Your task to perform on an android device: install app "PUBG MOBILE" Image 0: 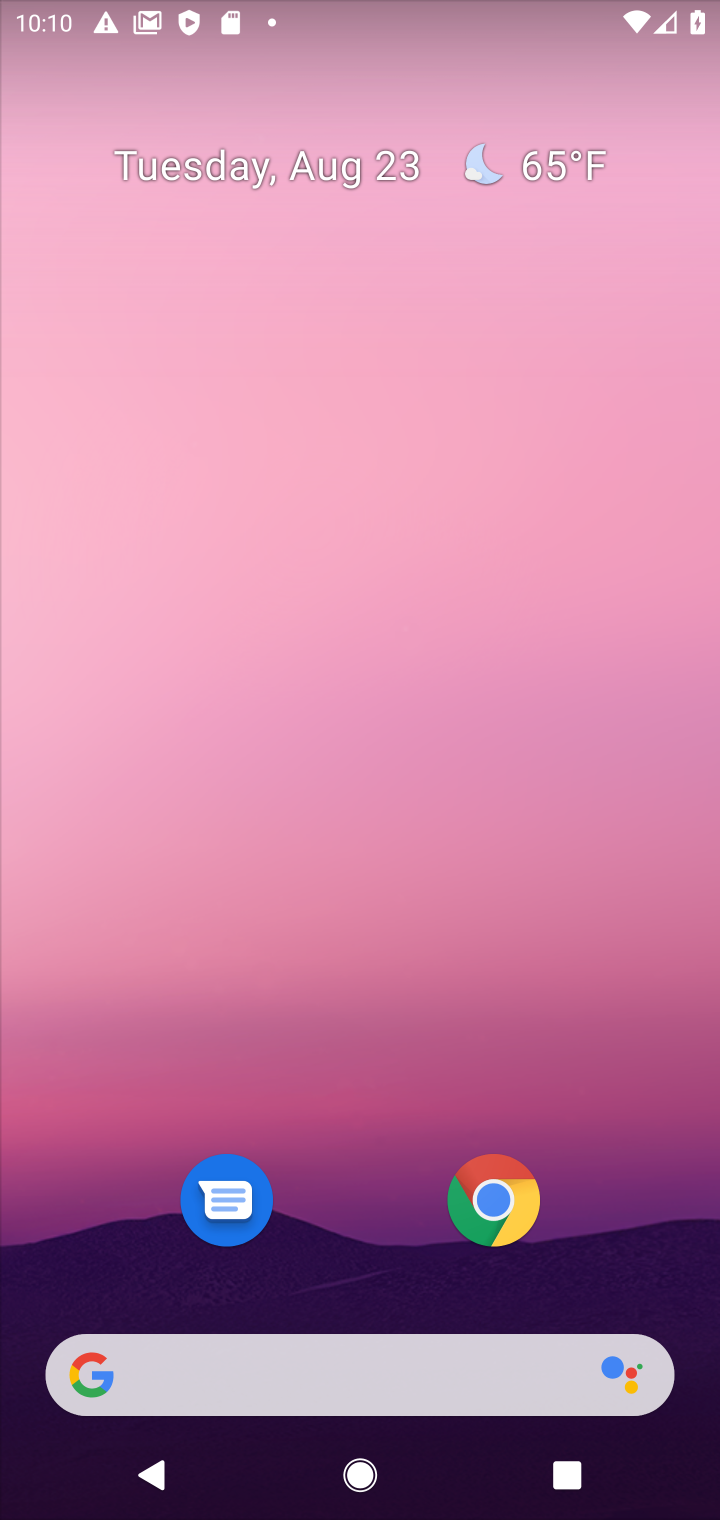
Step 0: drag from (363, 1291) to (337, 90)
Your task to perform on an android device: install app "PUBG MOBILE" Image 1: 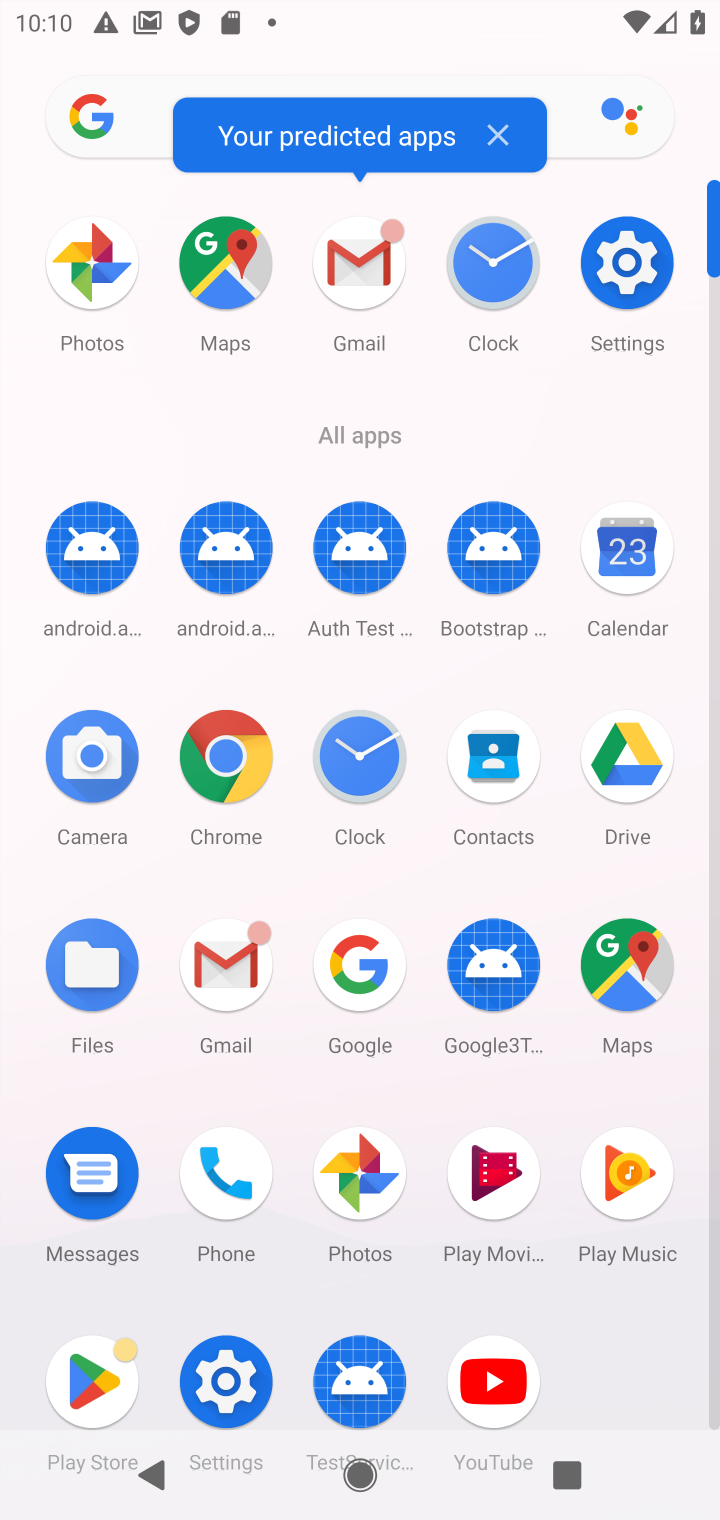
Step 1: click (60, 1337)
Your task to perform on an android device: install app "PUBG MOBILE" Image 2: 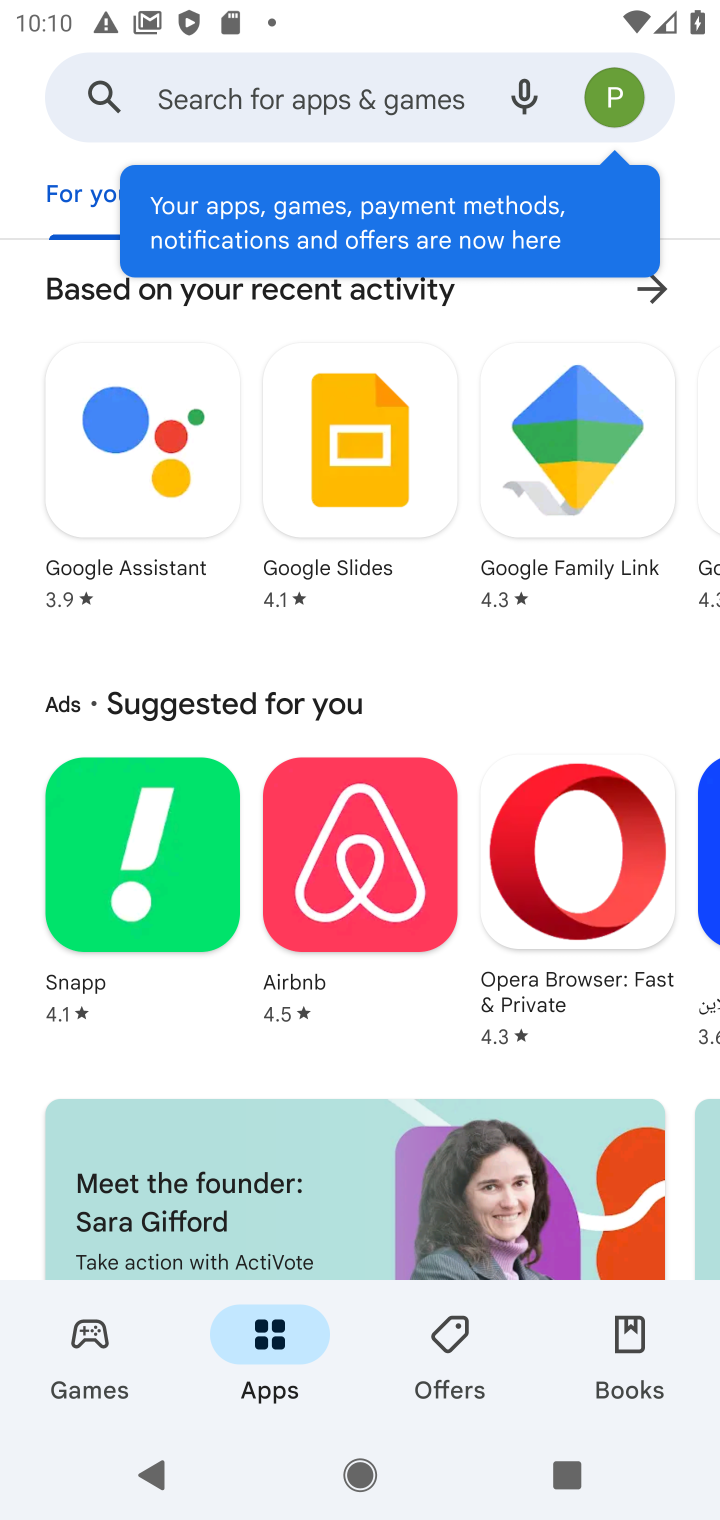
Step 2: click (230, 180)
Your task to perform on an android device: install app "PUBG MOBILE" Image 3: 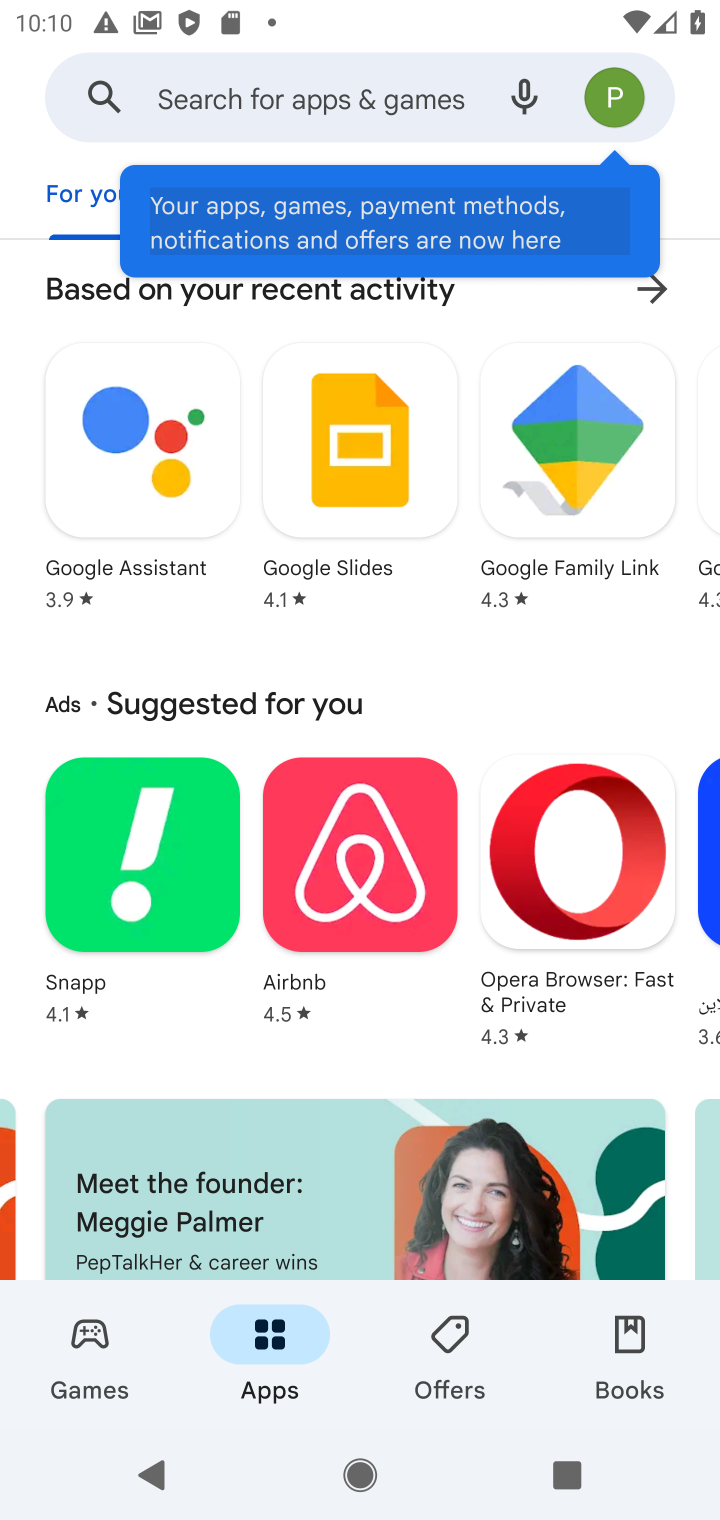
Step 3: click (271, 102)
Your task to perform on an android device: install app "PUBG MOBILE" Image 4: 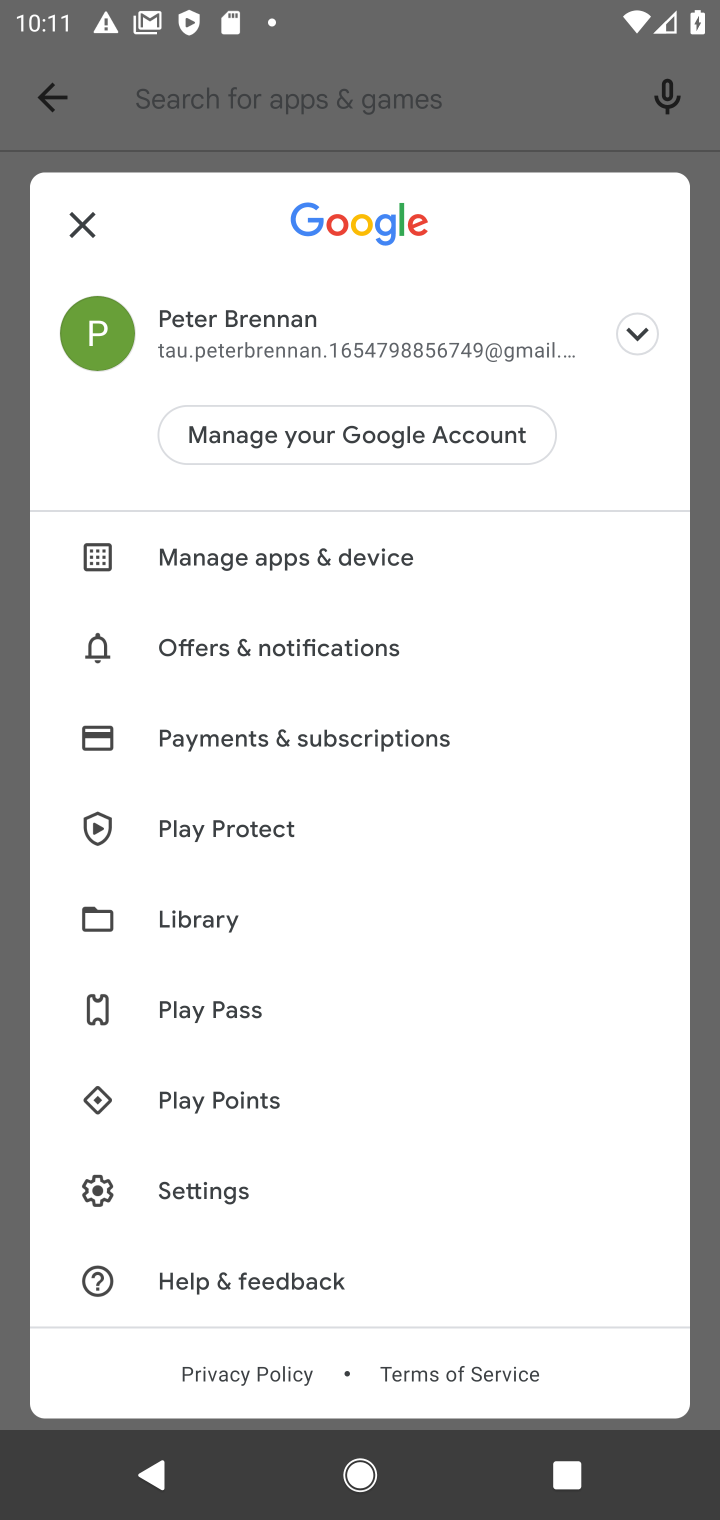
Step 4: click (271, 102)
Your task to perform on an android device: install app "PUBG MOBILE" Image 5: 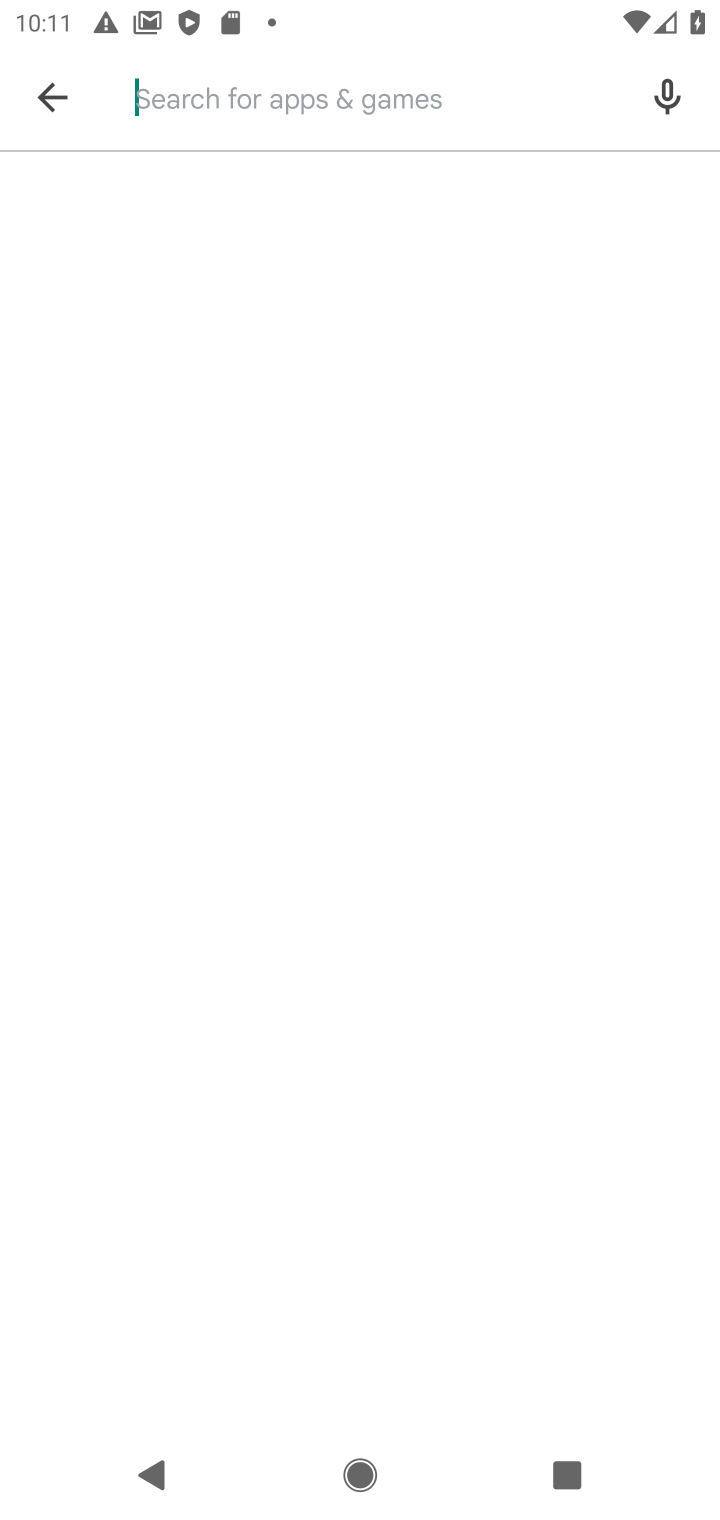
Step 5: click (323, 1519)
Your task to perform on an android device: install app "PUBG MOBILE" Image 6: 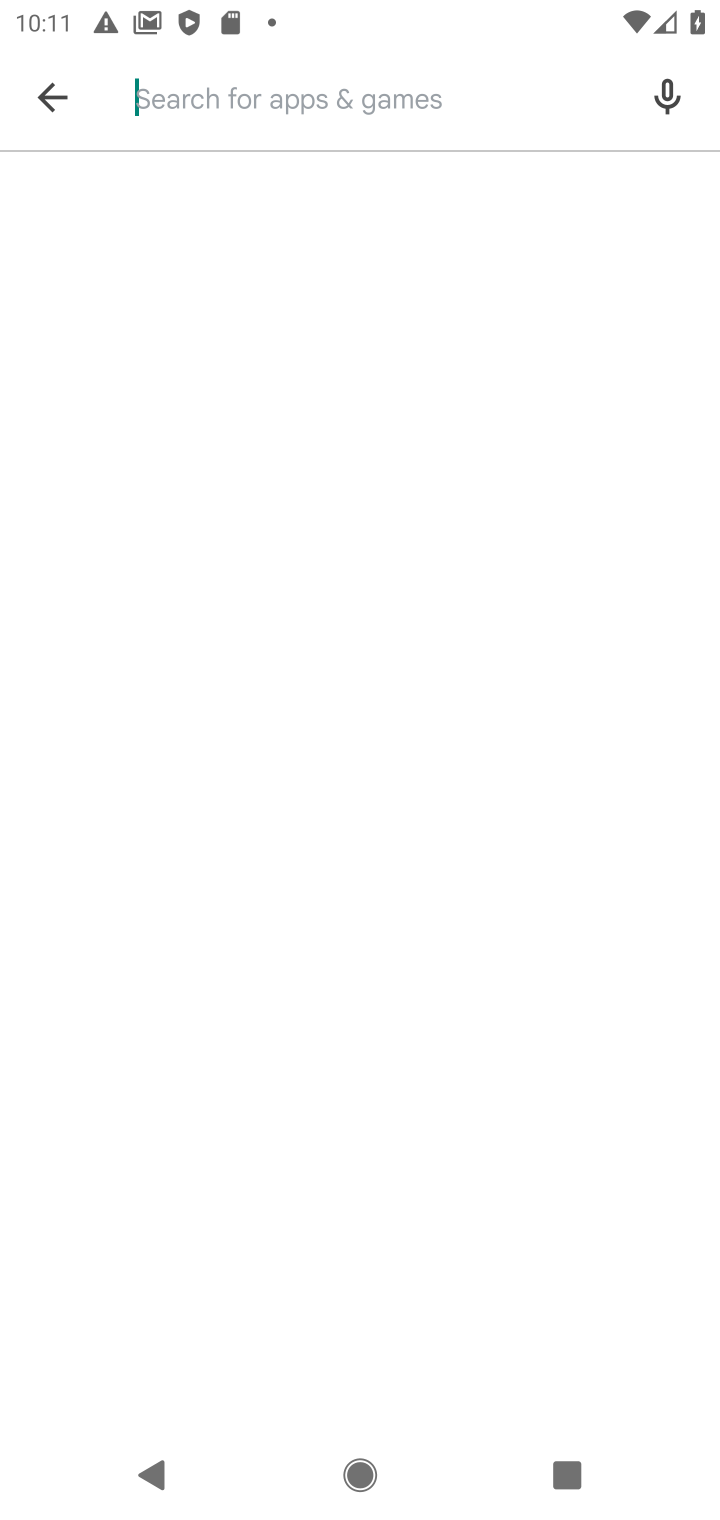
Step 6: type "PUBG MOBILE"
Your task to perform on an android device: install app "PUBG MOBILE" Image 7: 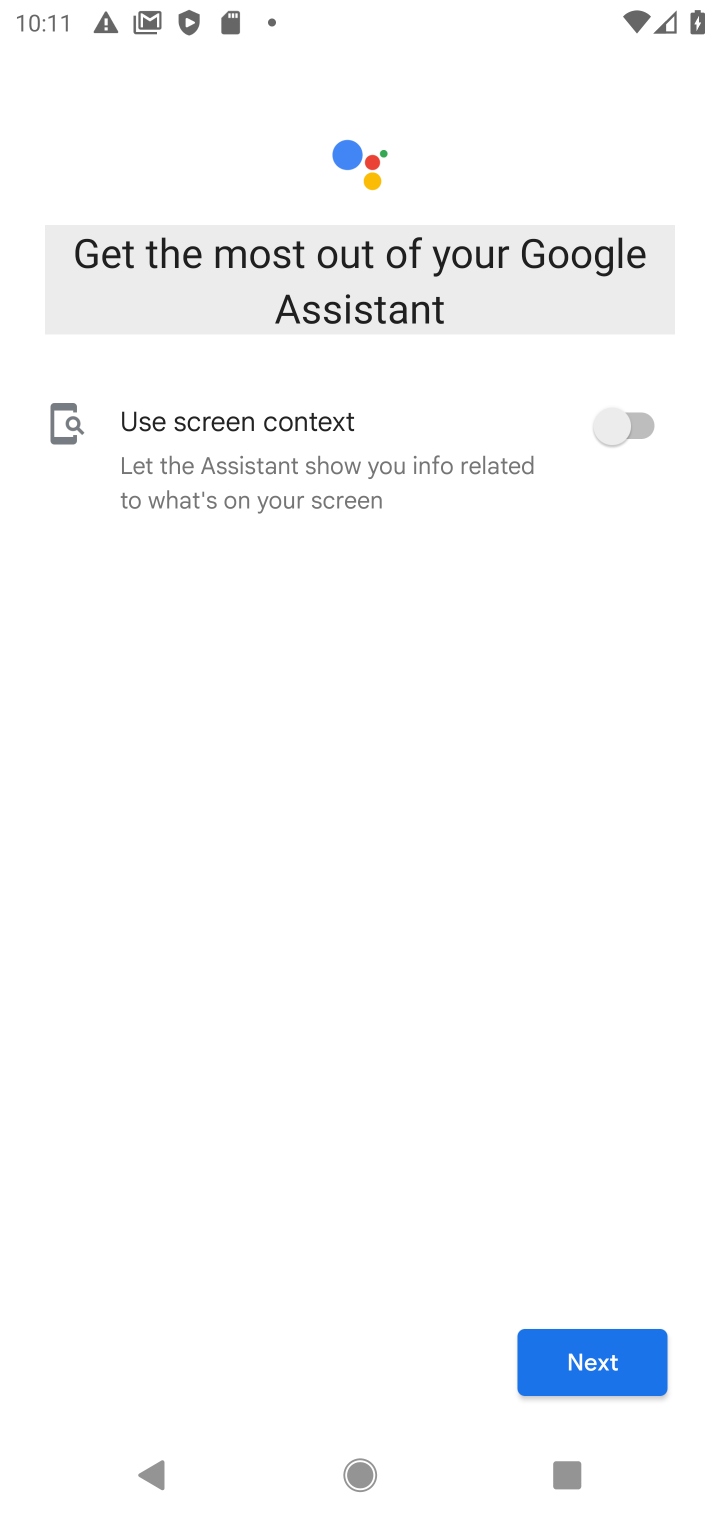
Step 7: click (323, 1519)
Your task to perform on an android device: install app "PUBG MOBILE" Image 8: 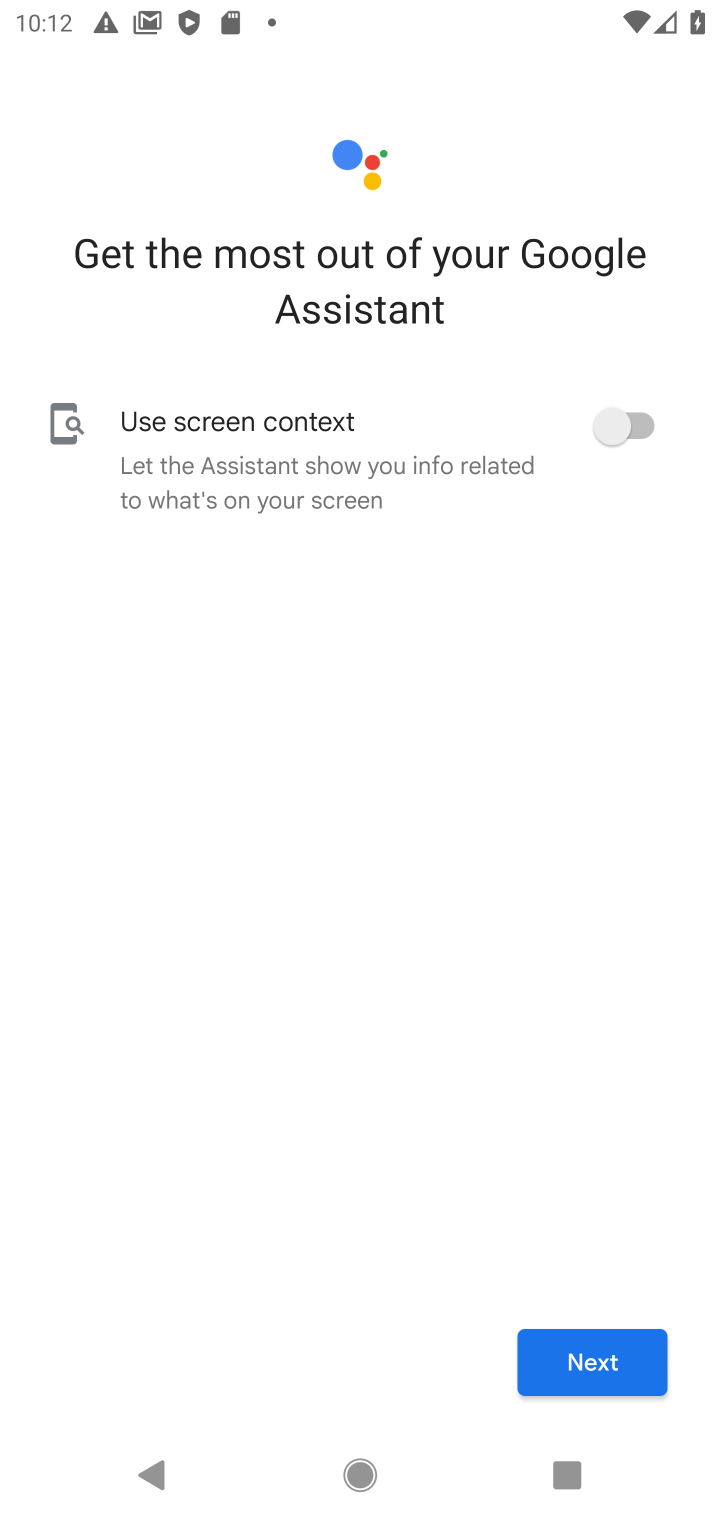
Step 8: press back button
Your task to perform on an android device: install app "PUBG MOBILE" Image 9: 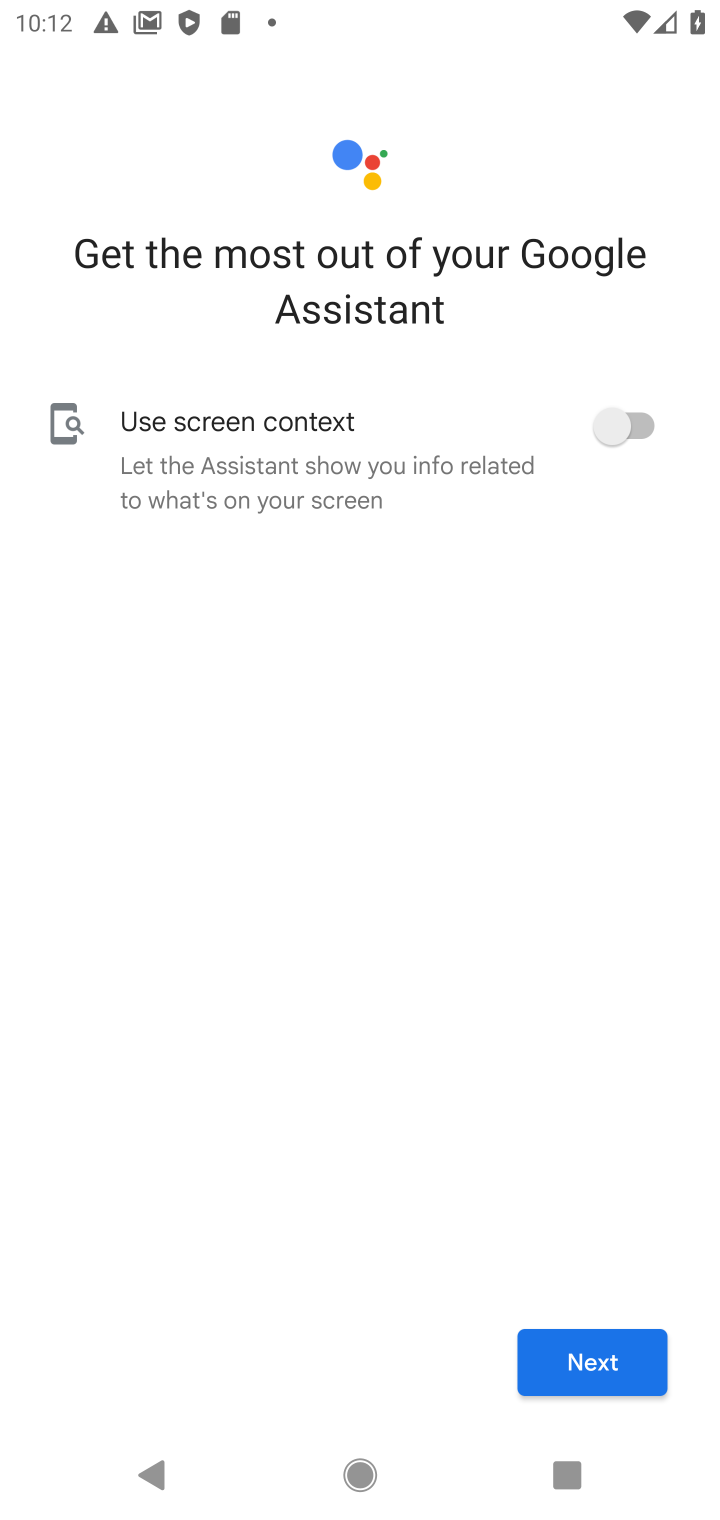
Step 9: drag from (323, 1519) to (573, 1020)
Your task to perform on an android device: install app "PUBG MOBILE" Image 10: 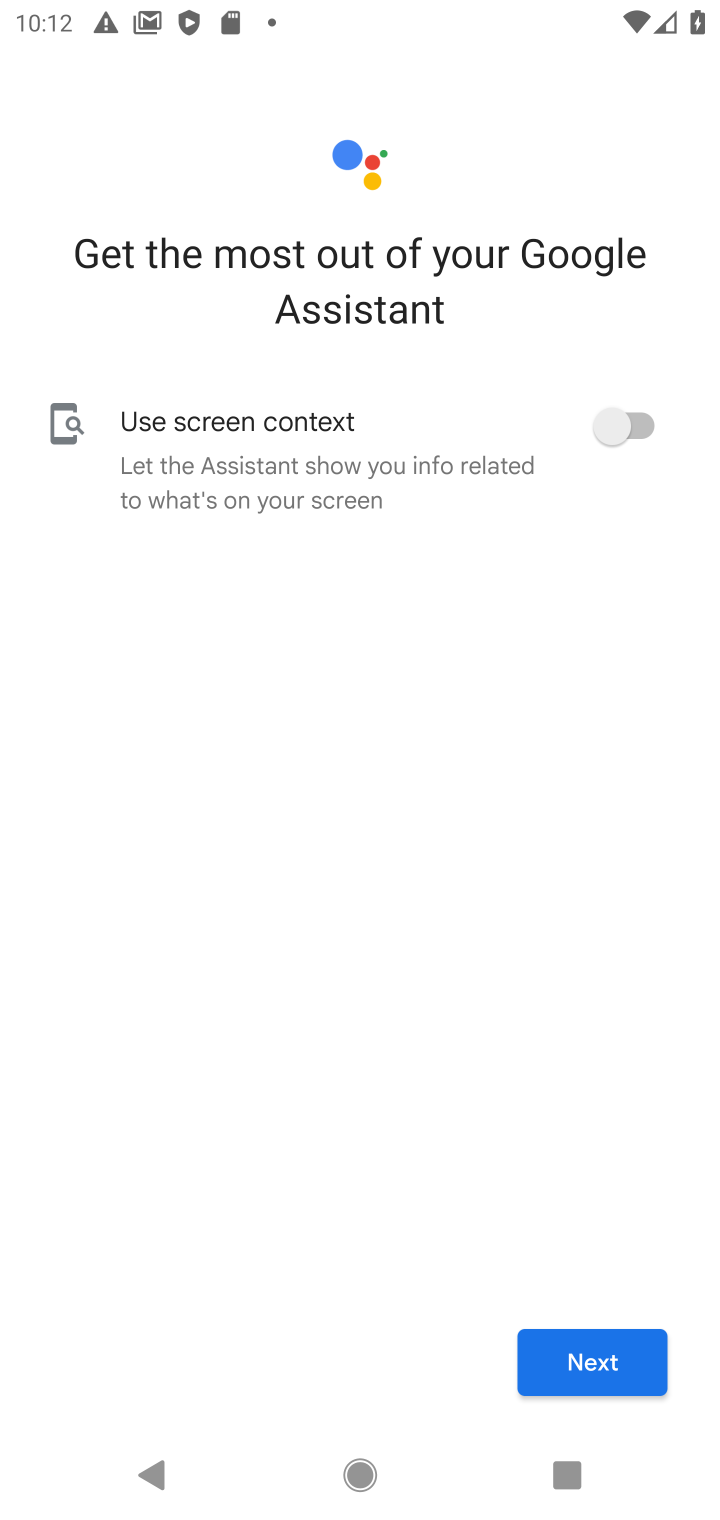
Step 10: press home button
Your task to perform on an android device: install app "PUBG MOBILE" Image 11: 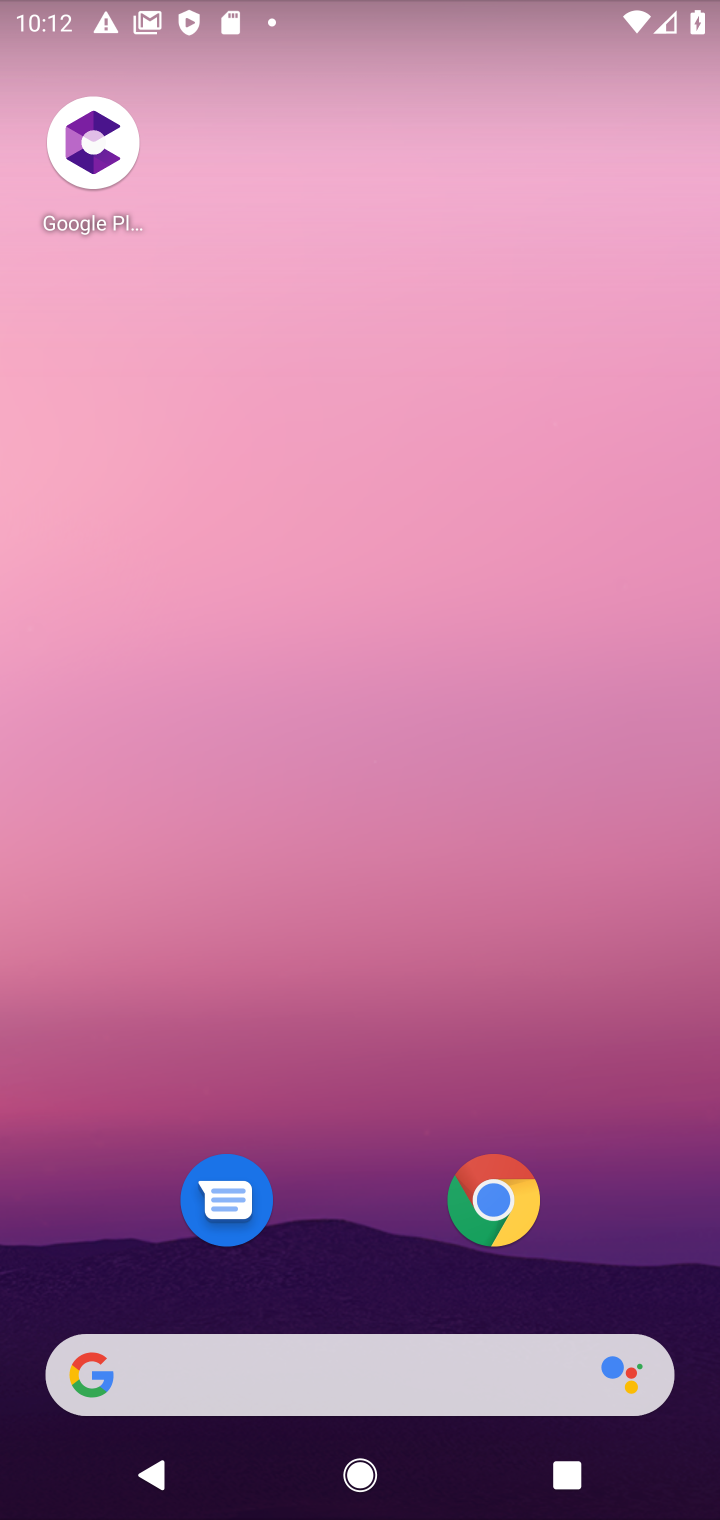
Step 11: drag from (325, 1286) to (136, 159)
Your task to perform on an android device: install app "PUBG MOBILE" Image 12: 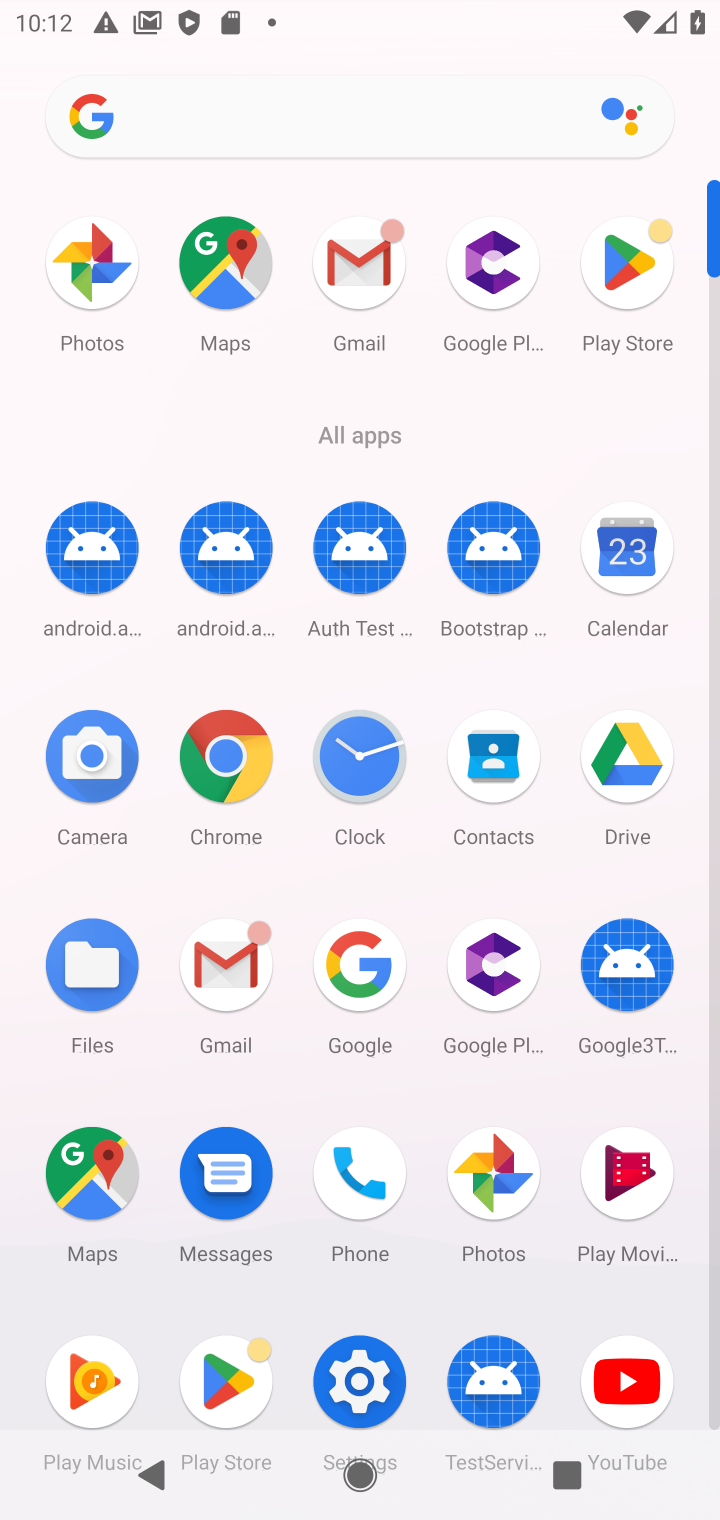
Step 12: click (224, 1373)
Your task to perform on an android device: install app "PUBG MOBILE" Image 13: 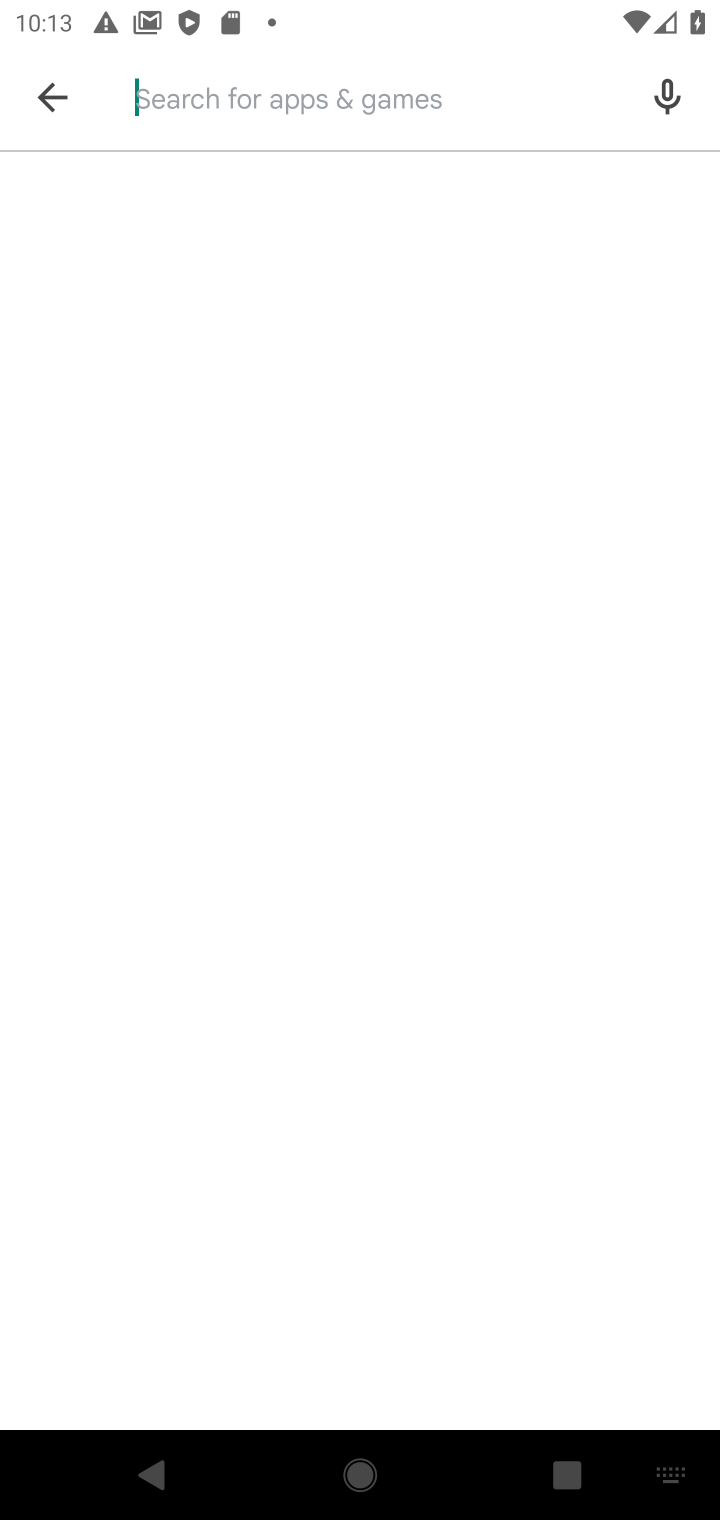
Step 13: type "PUBG MOBILE"
Your task to perform on an android device: install app "PUBG MOBILE" Image 14: 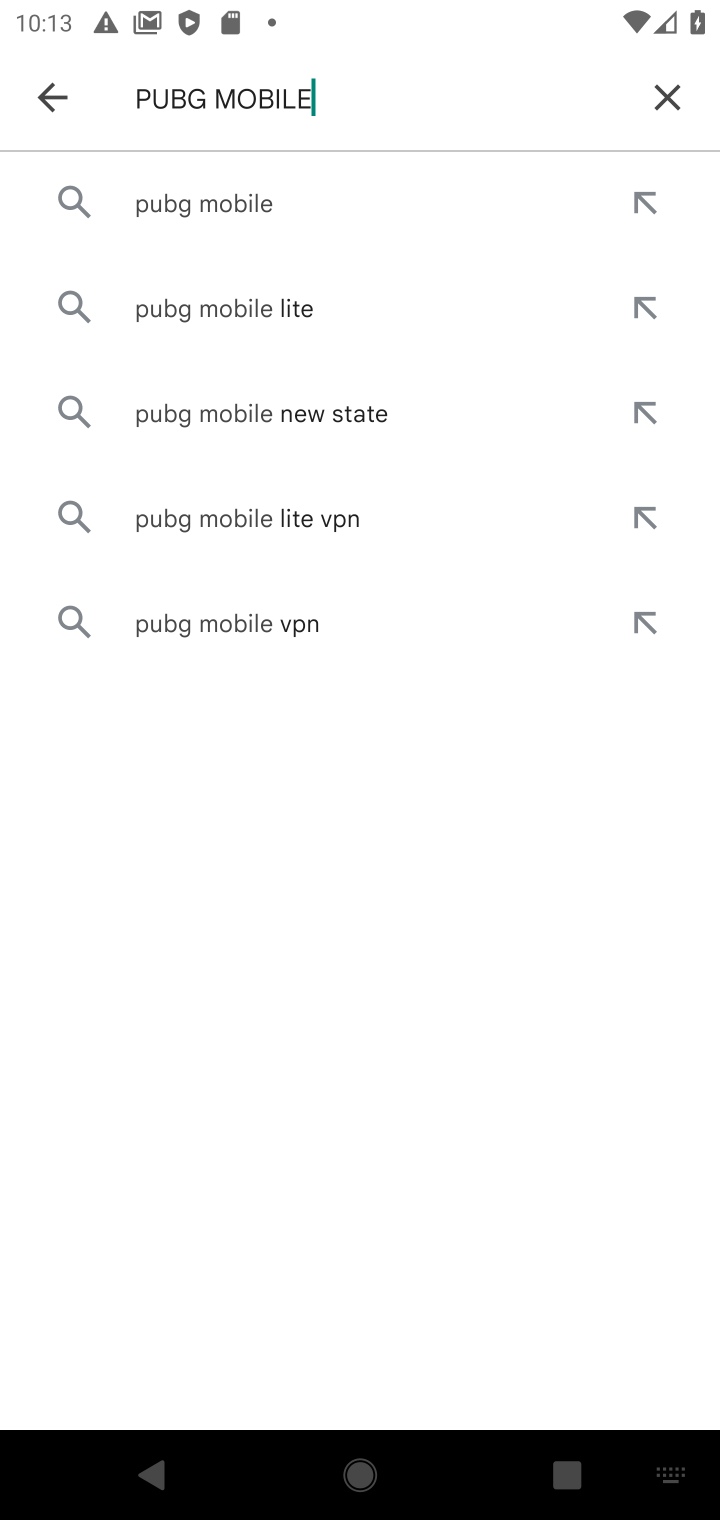
Step 14: click (197, 210)
Your task to perform on an android device: install app "PUBG MOBILE" Image 15: 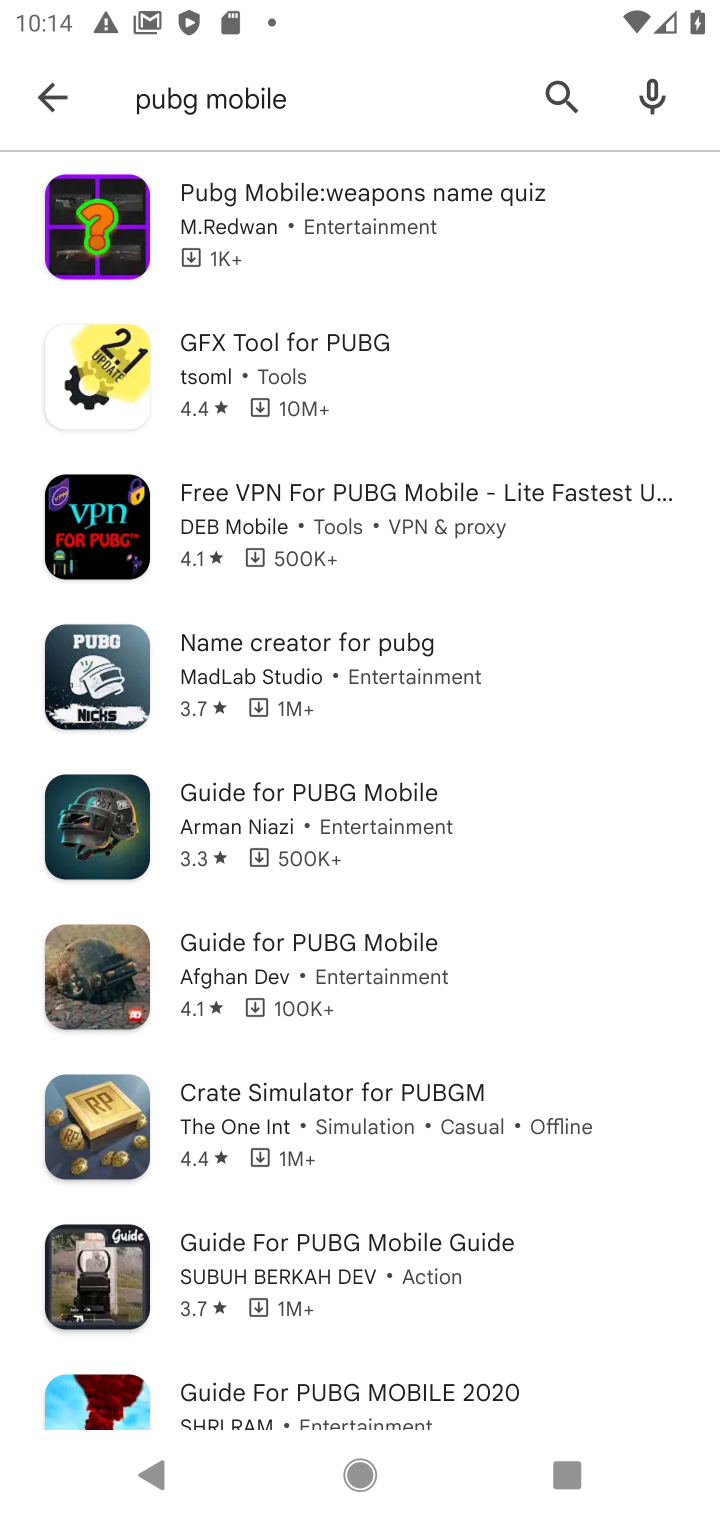
Step 15: task complete